Your task to perform on an android device: Go to notification settings Image 0: 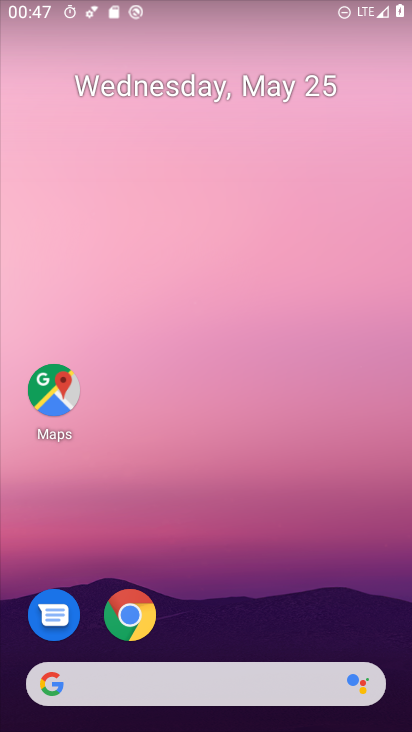
Step 0: drag from (282, 665) to (277, 229)
Your task to perform on an android device: Go to notification settings Image 1: 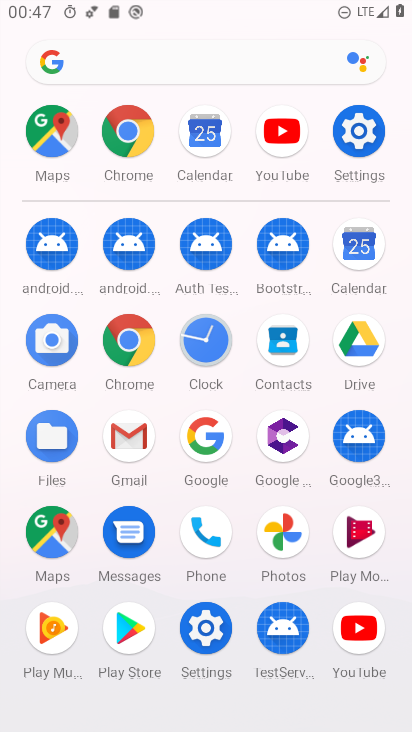
Step 1: click (366, 131)
Your task to perform on an android device: Go to notification settings Image 2: 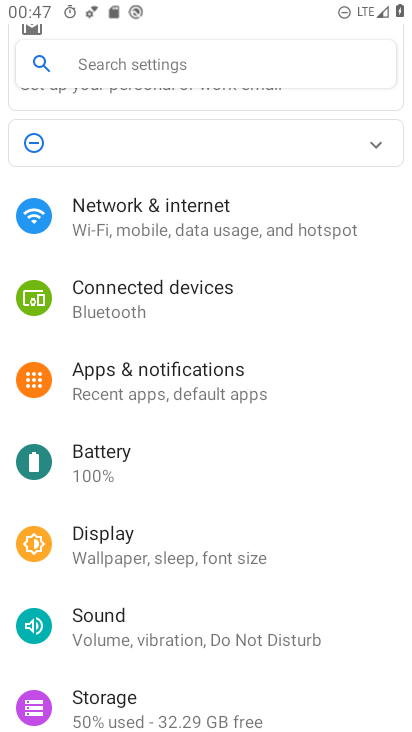
Step 2: click (143, 52)
Your task to perform on an android device: Go to notification settings Image 3: 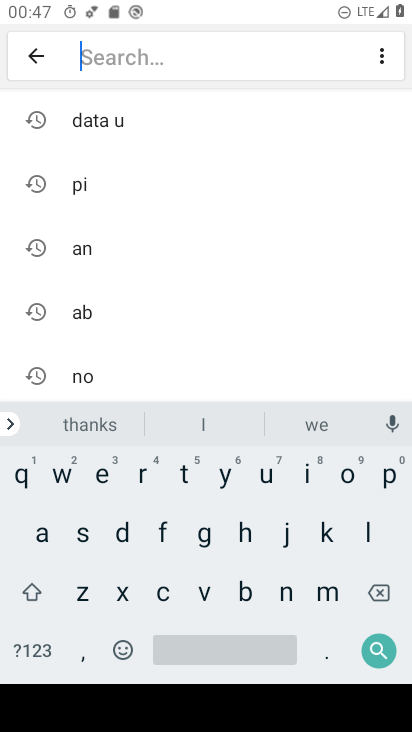
Step 3: click (290, 593)
Your task to perform on an android device: Go to notification settings Image 4: 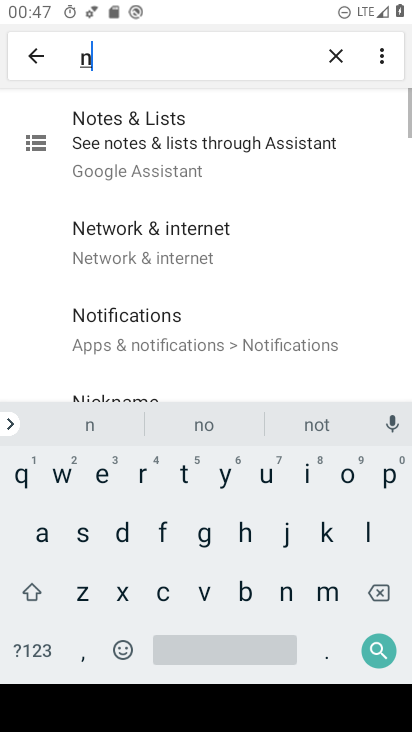
Step 4: click (346, 476)
Your task to perform on an android device: Go to notification settings Image 5: 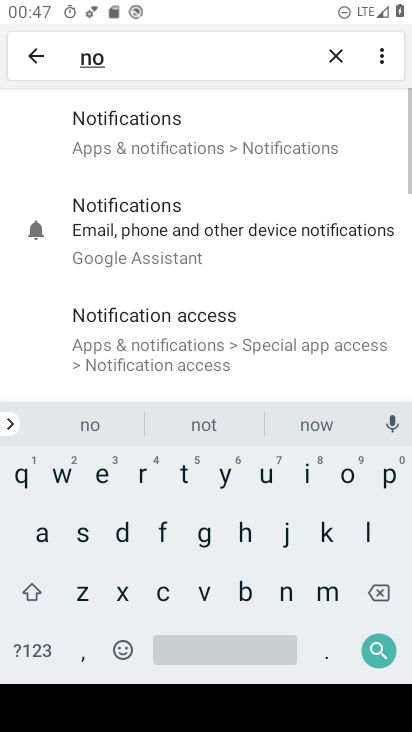
Step 5: click (172, 135)
Your task to perform on an android device: Go to notification settings Image 6: 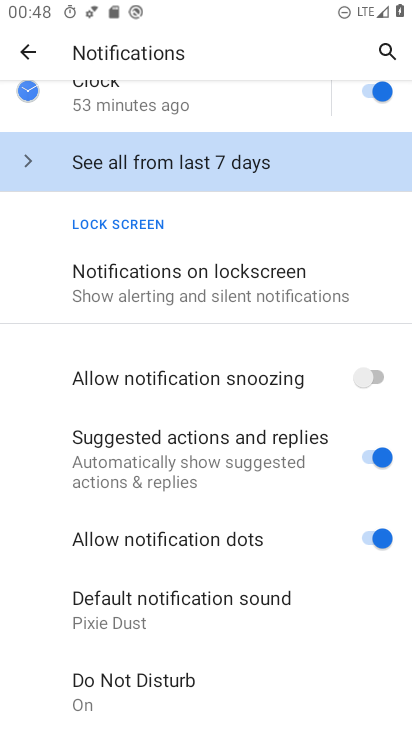
Step 6: click (126, 263)
Your task to perform on an android device: Go to notification settings Image 7: 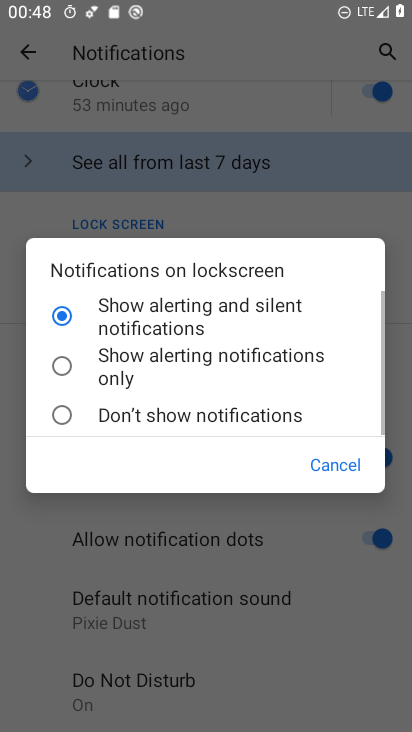
Step 7: task complete